Your task to perform on an android device: turn on the 12-hour format for clock Image 0: 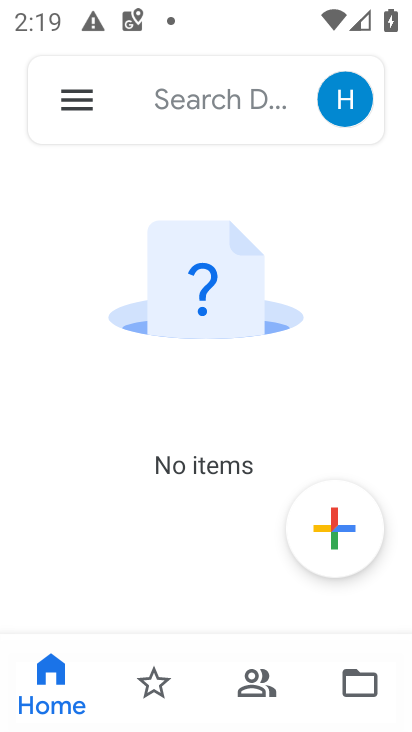
Step 0: press home button
Your task to perform on an android device: turn on the 12-hour format for clock Image 1: 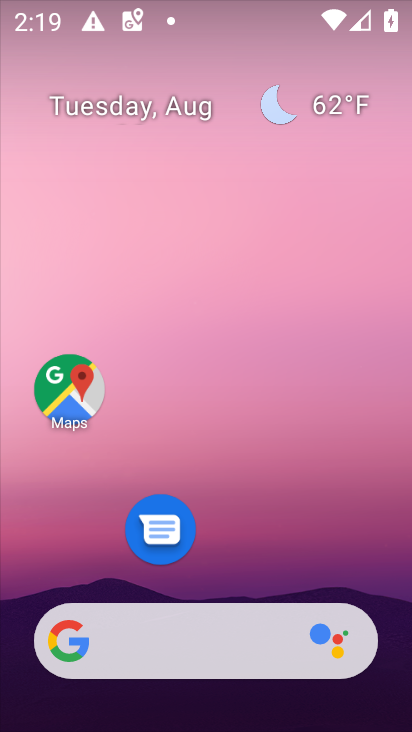
Step 1: drag from (294, 593) to (303, 339)
Your task to perform on an android device: turn on the 12-hour format for clock Image 2: 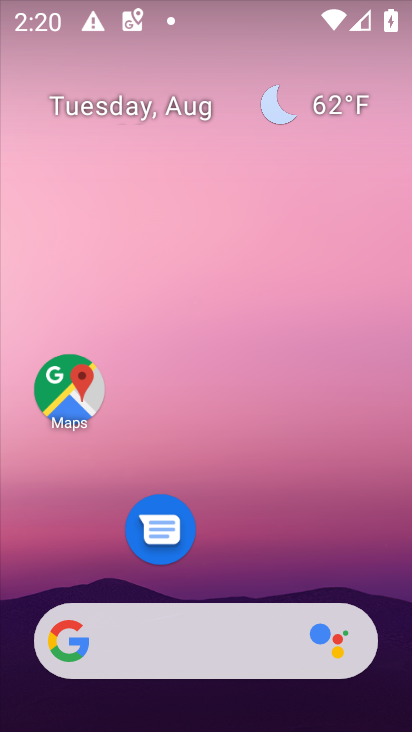
Step 2: click (157, 501)
Your task to perform on an android device: turn on the 12-hour format for clock Image 3: 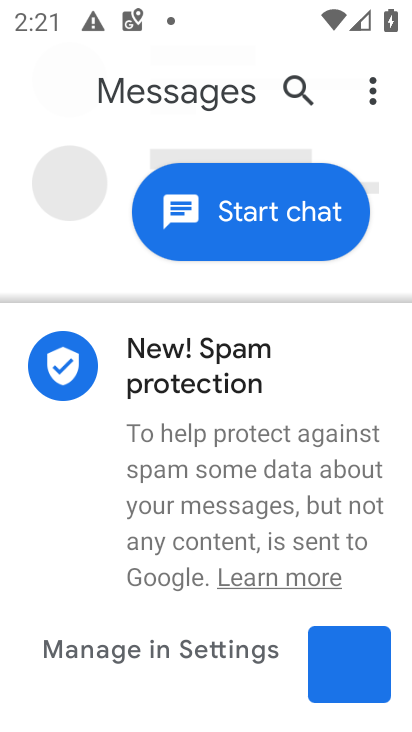
Step 3: task complete